Your task to perform on an android device: check google app version Image 0: 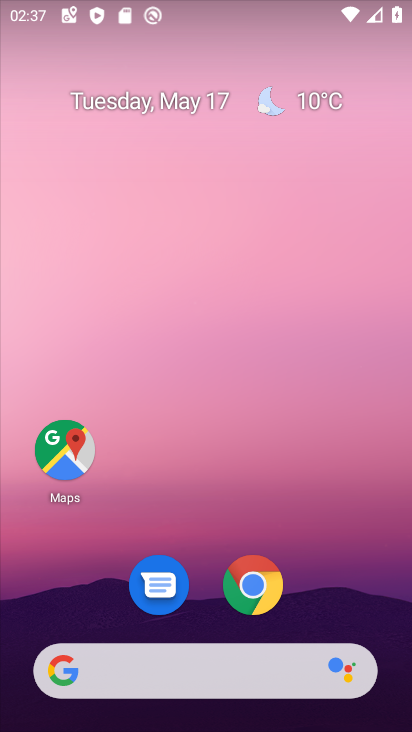
Step 0: click (257, 662)
Your task to perform on an android device: check google app version Image 1: 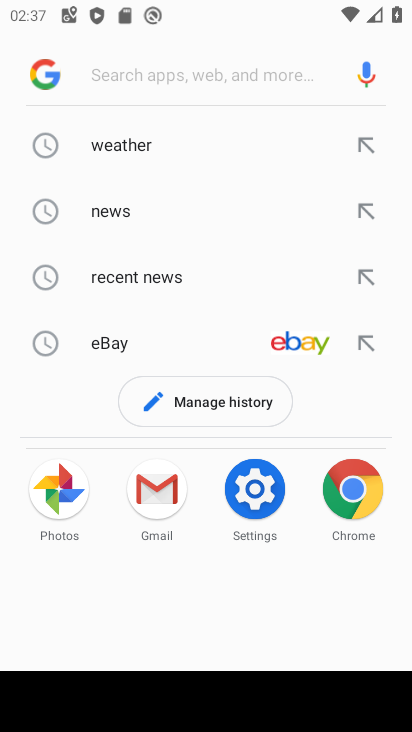
Step 1: click (43, 70)
Your task to perform on an android device: check google app version Image 2: 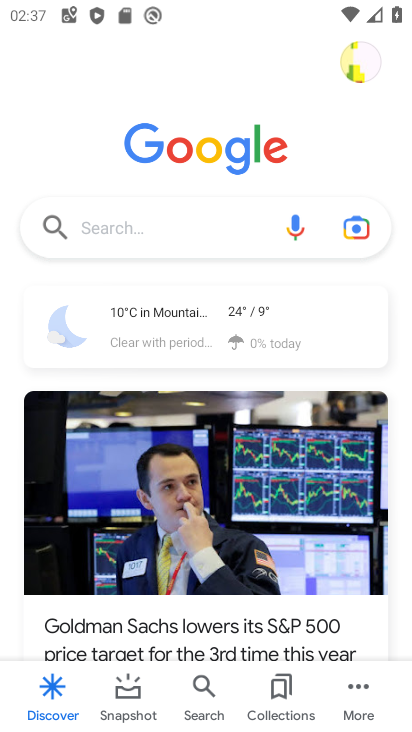
Step 2: click (358, 678)
Your task to perform on an android device: check google app version Image 3: 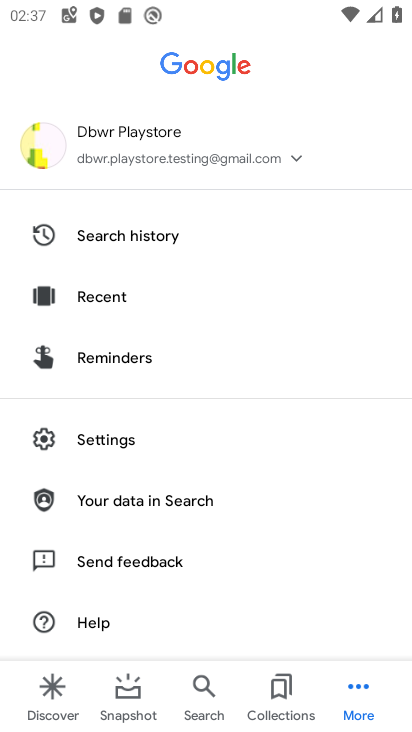
Step 3: click (105, 431)
Your task to perform on an android device: check google app version Image 4: 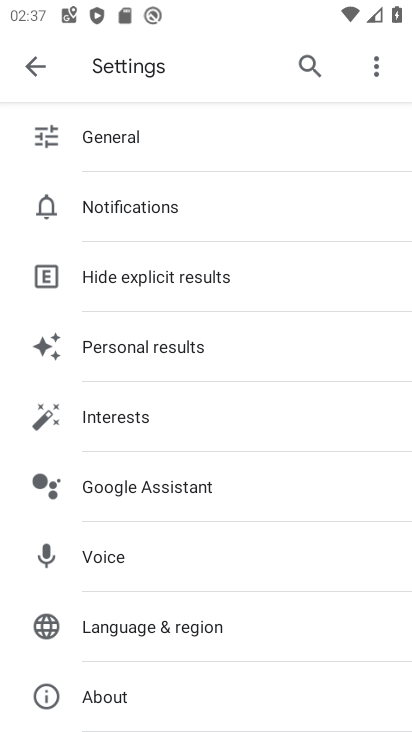
Step 4: click (178, 694)
Your task to perform on an android device: check google app version Image 5: 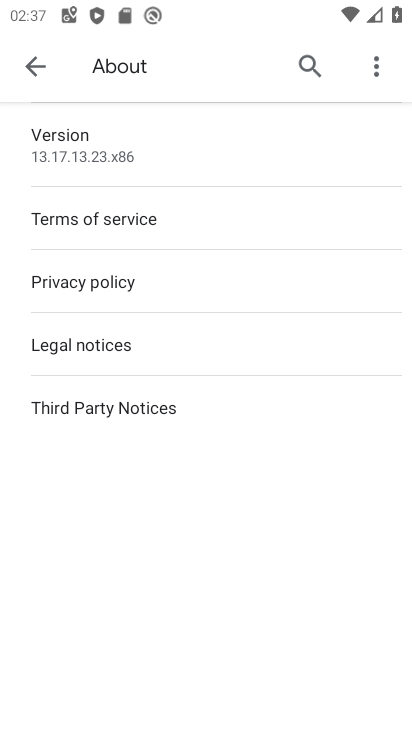
Step 5: task complete